Your task to perform on an android device: turn on wifi Image 0: 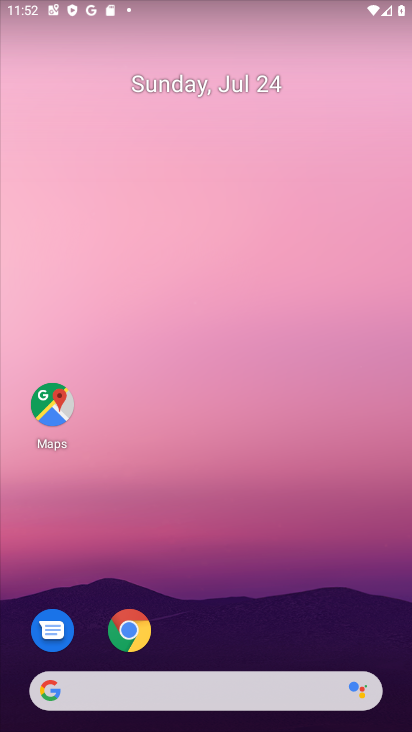
Step 0: drag from (302, 33) to (334, 325)
Your task to perform on an android device: turn on wifi Image 1: 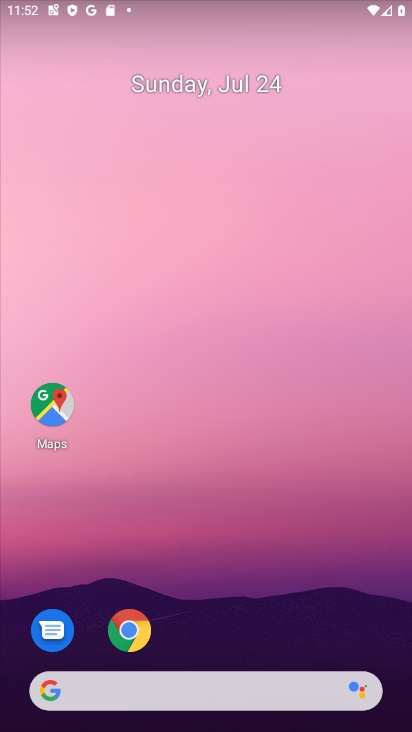
Step 1: task complete